Your task to perform on an android device: Open sound settings Image 0: 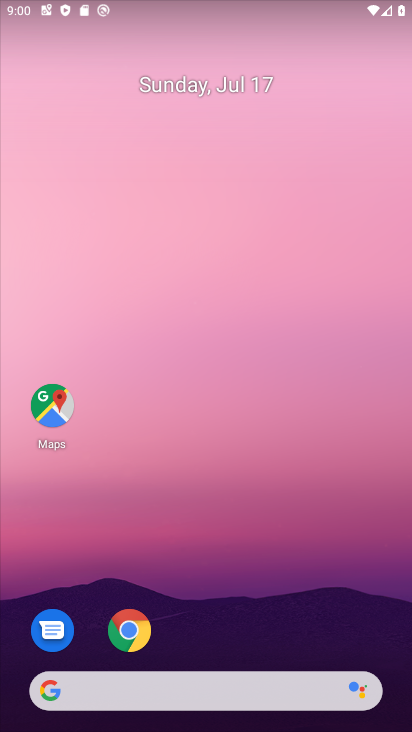
Step 0: drag from (257, 639) to (314, 174)
Your task to perform on an android device: Open sound settings Image 1: 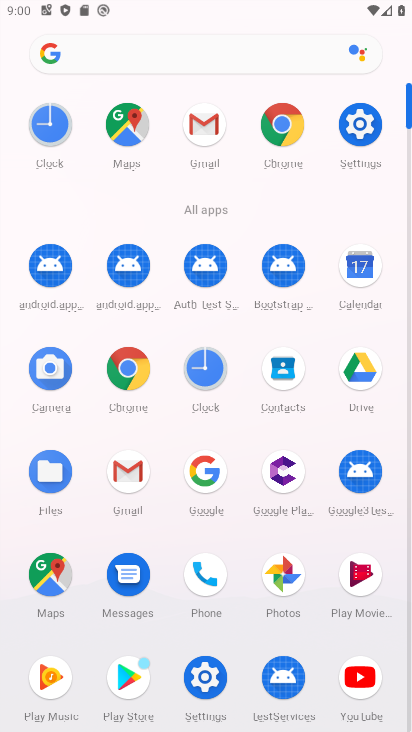
Step 1: click (372, 116)
Your task to perform on an android device: Open sound settings Image 2: 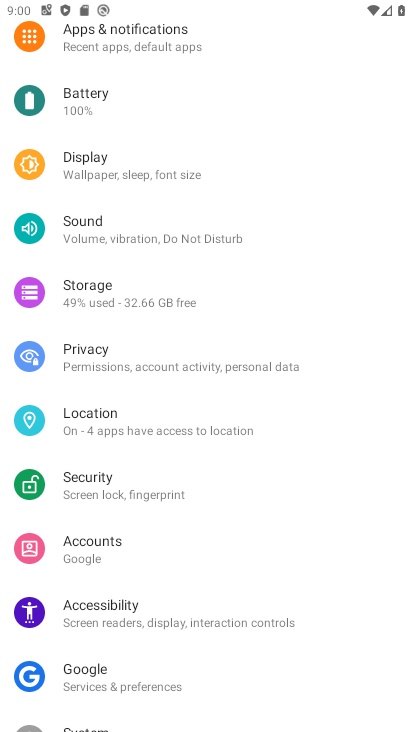
Step 2: click (102, 220)
Your task to perform on an android device: Open sound settings Image 3: 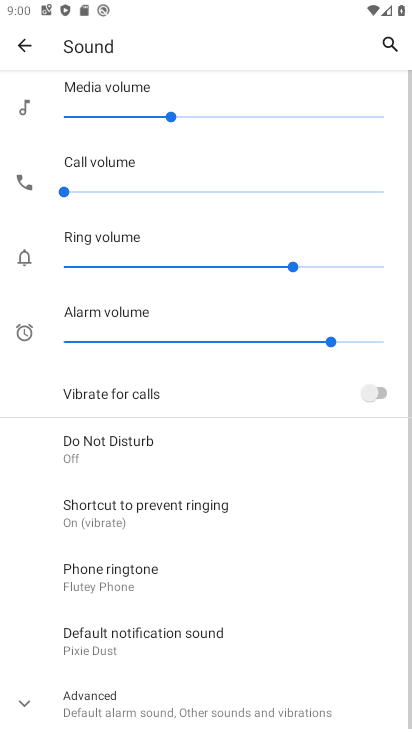
Step 3: task complete